Your task to perform on an android device: Clear the shopping cart on amazon.com. Search for "razer blackwidow" on amazon.com, select the first entry, and add it to the cart. Image 0: 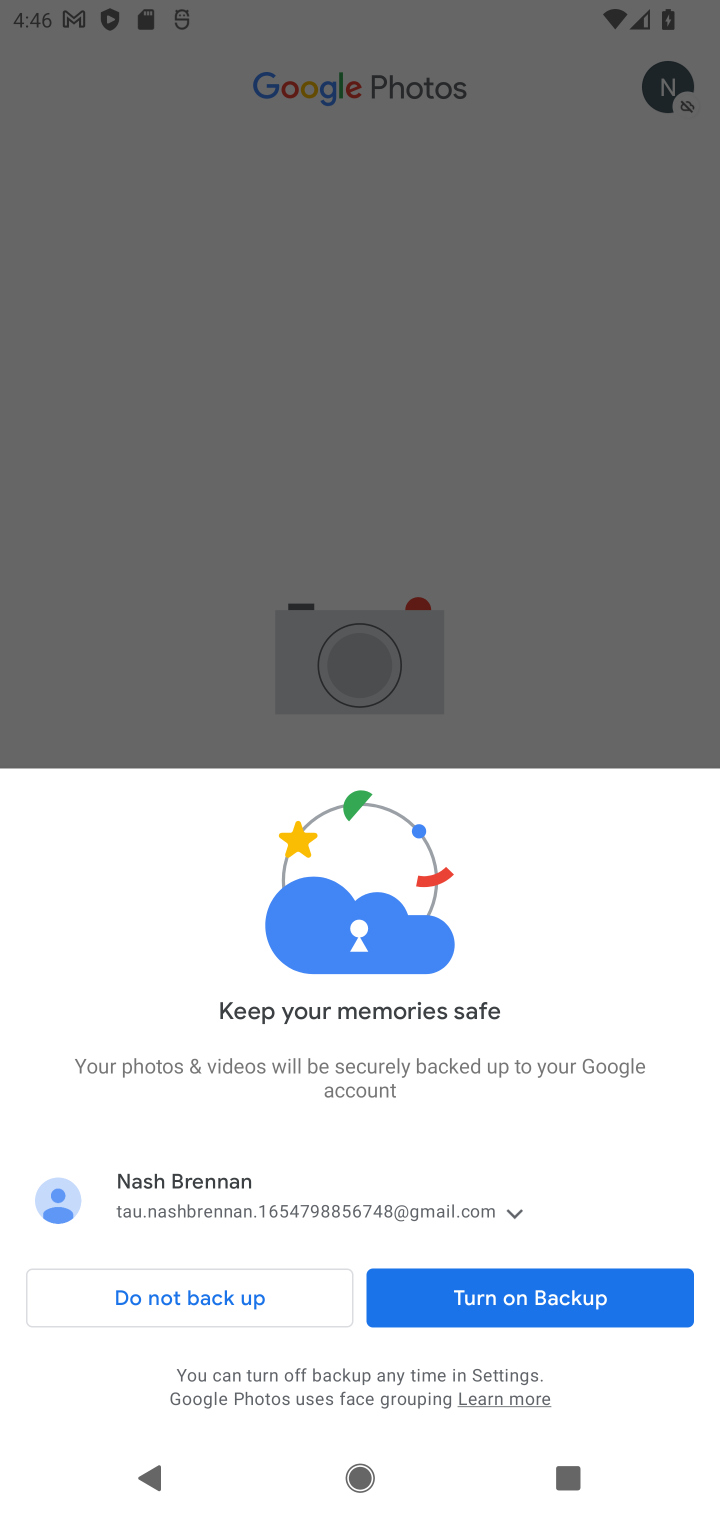
Step 0: press home button
Your task to perform on an android device: Clear the shopping cart on amazon.com. Search for "razer blackwidow" on amazon.com, select the first entry, and add it to the cart. Image 1: 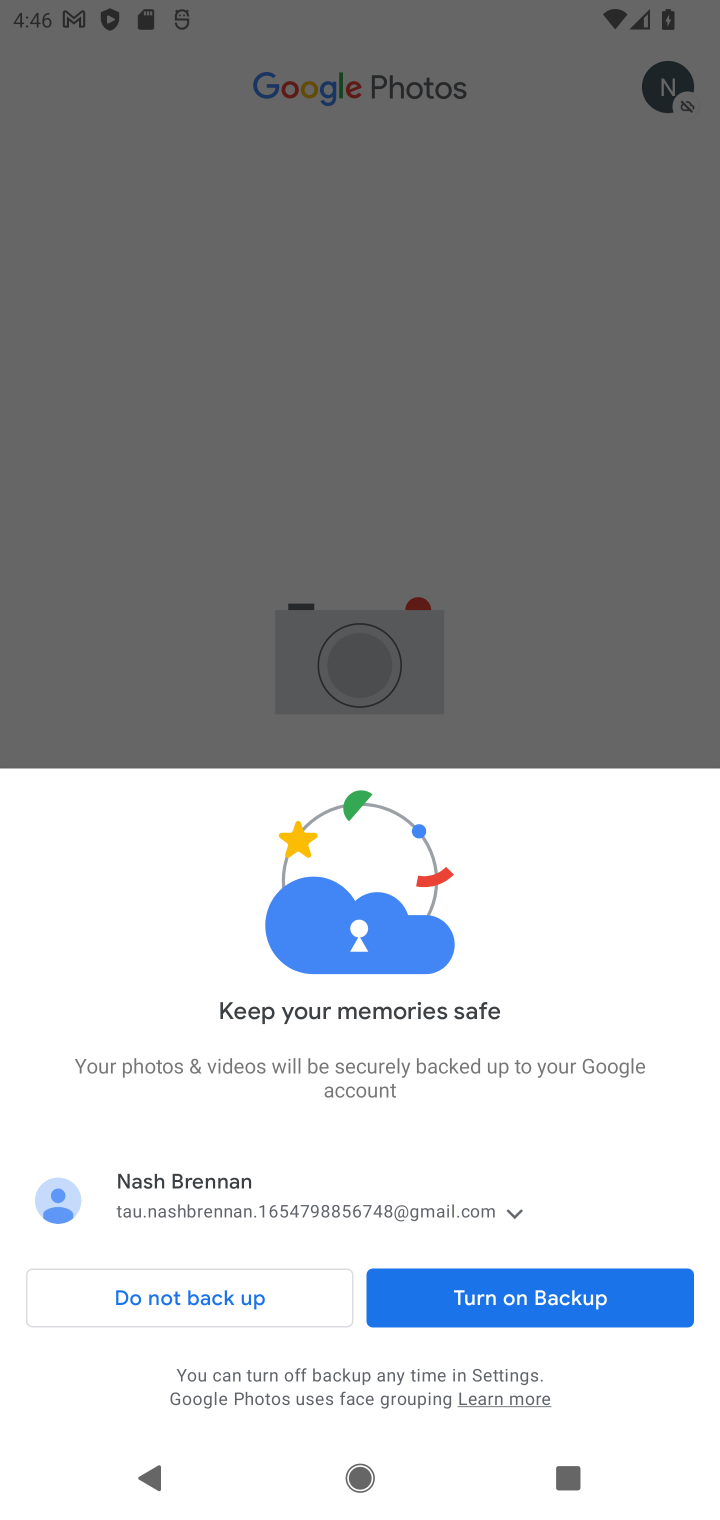
Step 1: press home button
Your task to perform on an android device: Clear the shopping cart on amazon.com. Search for "razer blackwidow" on amazon.com, select the first entry, and add it to the cart. Image 2: 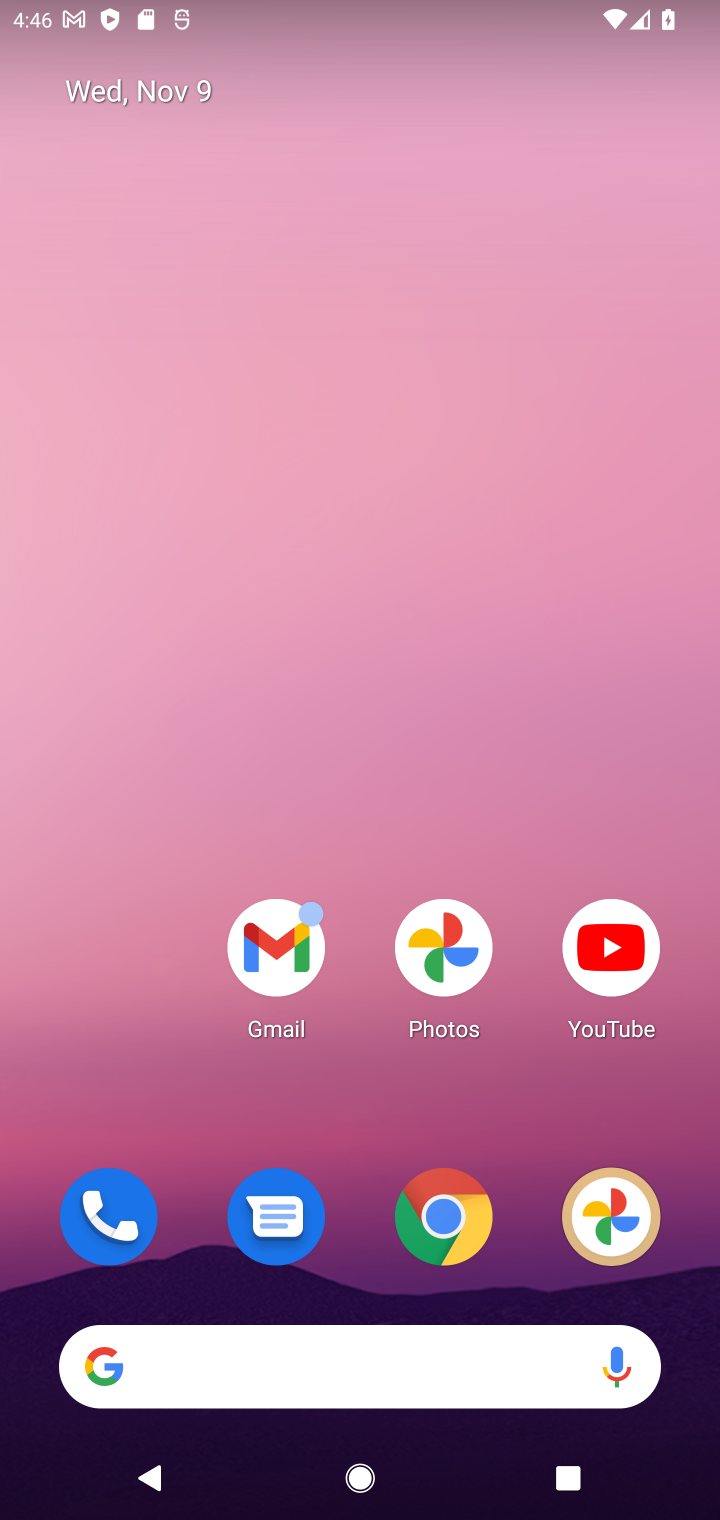
Step 2: drag from (333, 1170) to (529, 226)
Your task to perform on an android device: Clear the shopping cart on amazon.com. Search for "razer blackwidow" on amazon.com, select the first entry, and add it to the cart. Image 3: 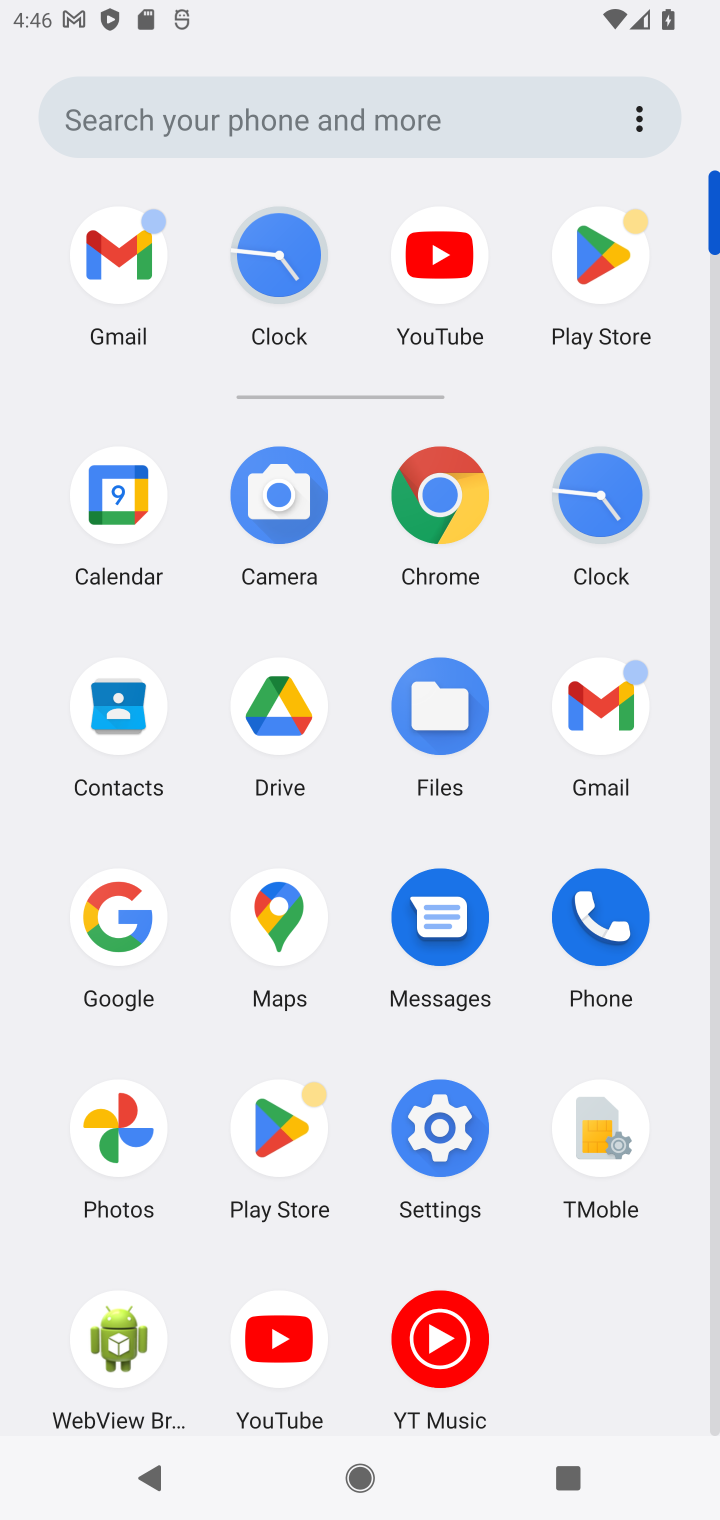
Step 3: click (429, 501)
Your task to perform on an android device: Clear the shopping cart on amazon.com. Search for "razer blackwidow" on amazon.com, select the first entry, and add it to the cart. Image 4: 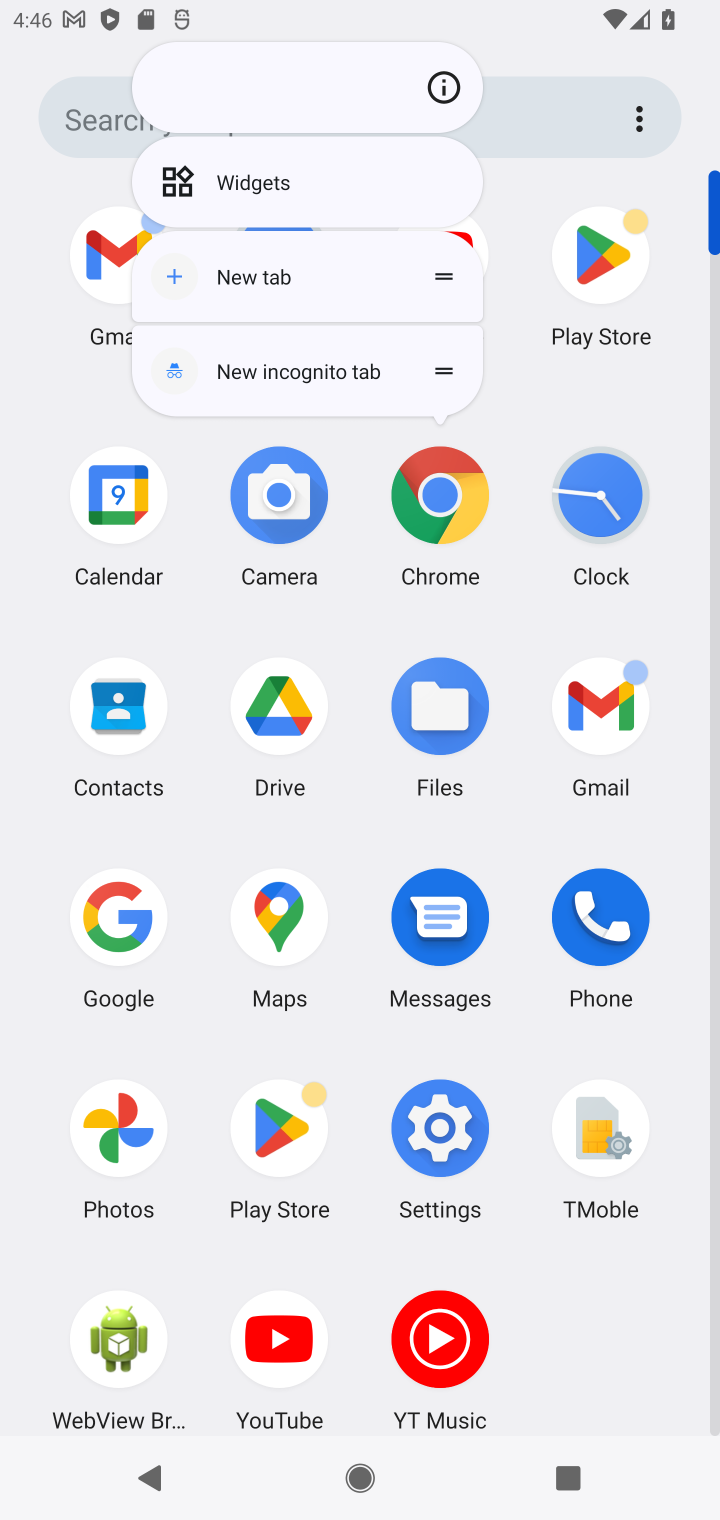
Step 4: click (458, 489)
Your task to perform on an android device: Clear the shopping cart on amazon.com. Search for "razer blackwidow" on amazon.com, select the first entry, and add it to the cart. Image 5: 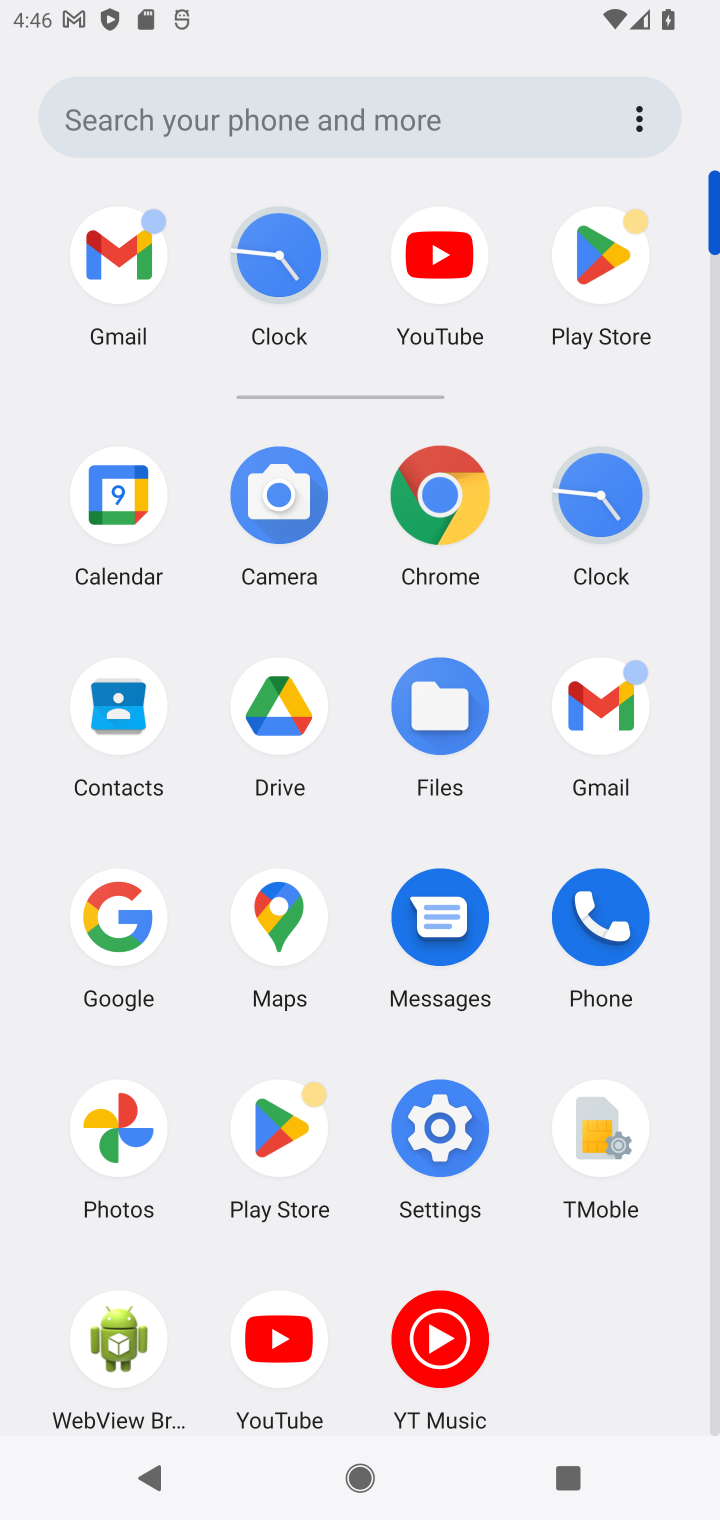
Step 5: click (442, 493)
Your task to perform on an android device: Clear the shopping cart on amazon.com. Search for "razer blackwidow" on amazon.com, select the first entry, and add it to the cart. Image 6: 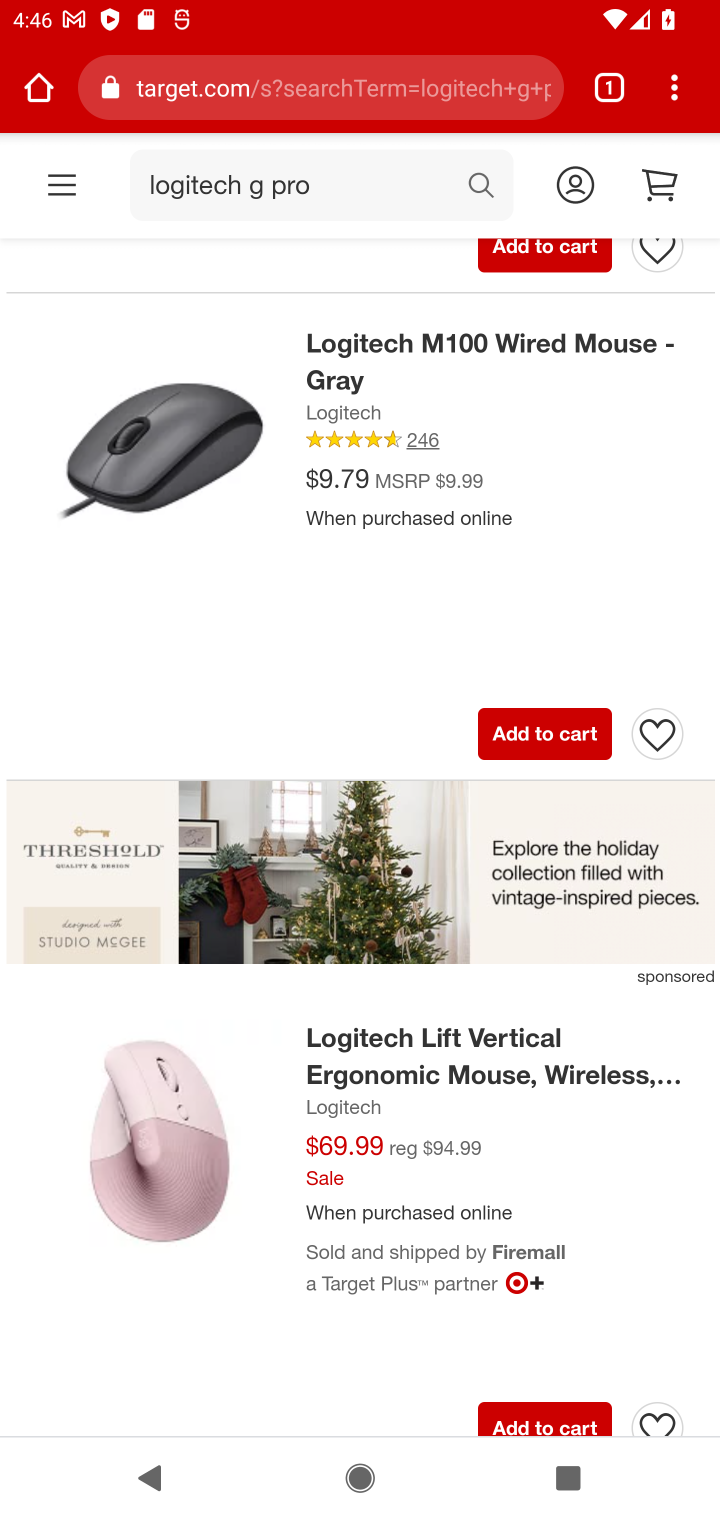
Step 6: click (371, 95)
Your task to perform on an android device: Clear the shopping cart on amazon.com. Search for "razer blackwidow" on amazon.com, select the first entry, and add it to the cart. Image 7: 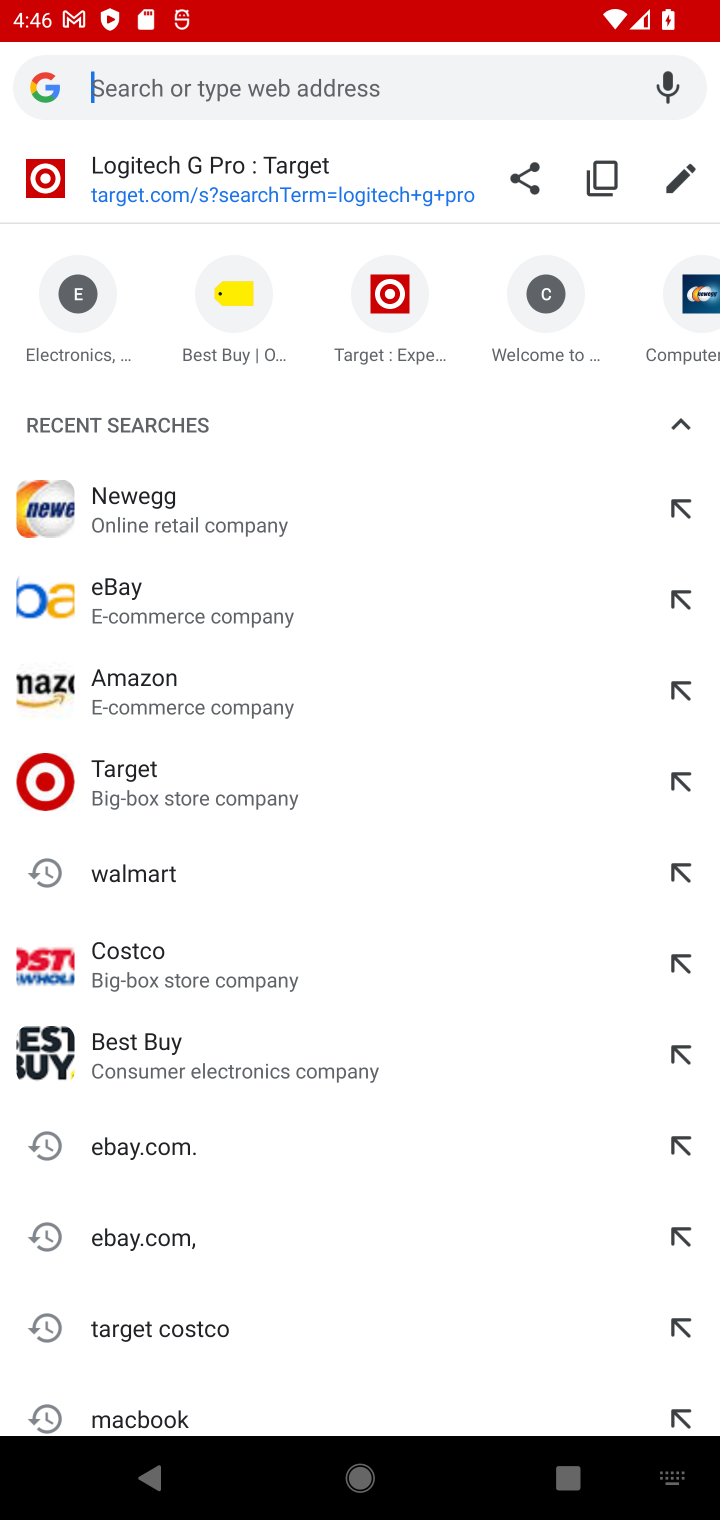
Step 7: type "amazon.com"
Your task to perform on an android device: Clear the shopping cart on amazon.com. Search for "razer blackwidow" on amazon.com, select the first entry, and add it to the cart. Image 8: 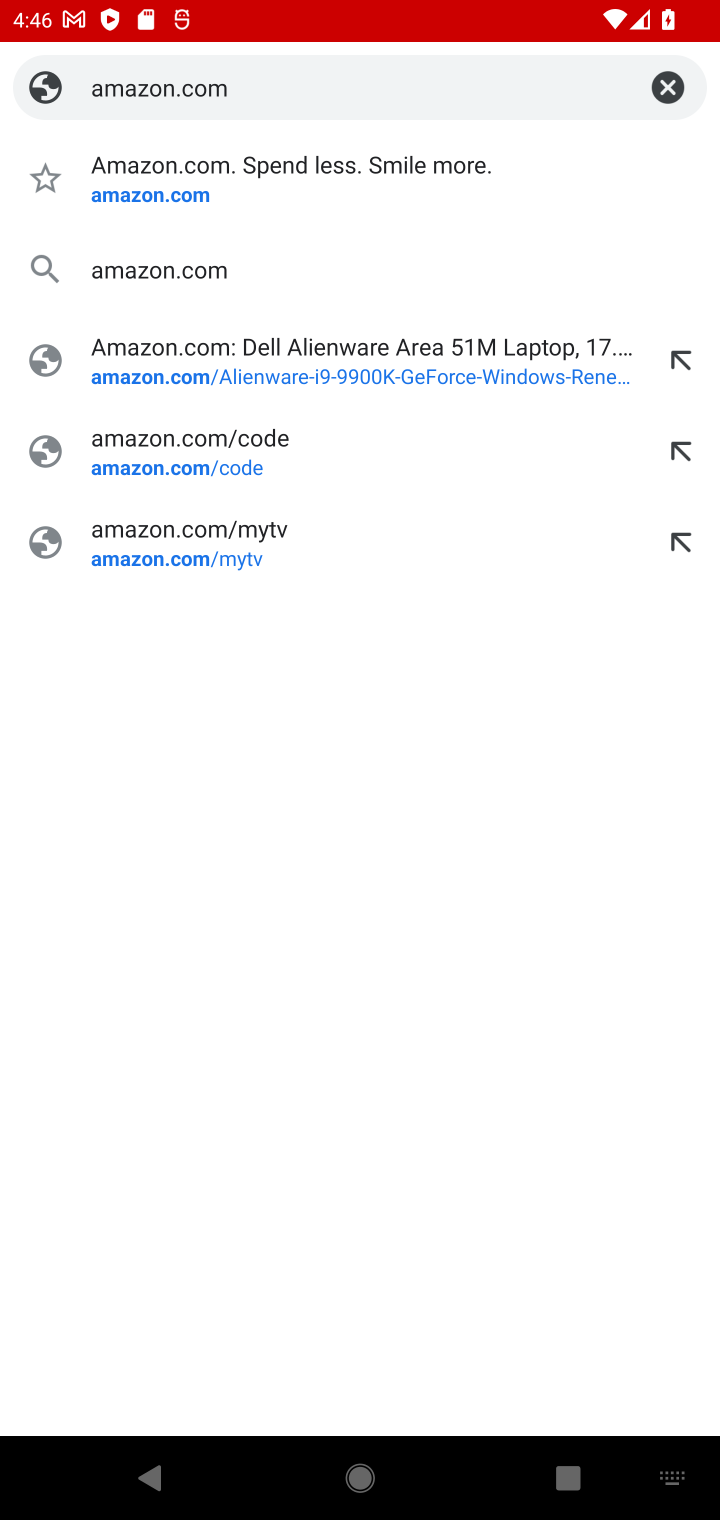
Step 8: press enter
Your task to perform on an android device: Clear the shopping cart on amazon.com. Search for "razer blackwidow" on amazon.com, select the first entry, and add it to the cart. Image 9: 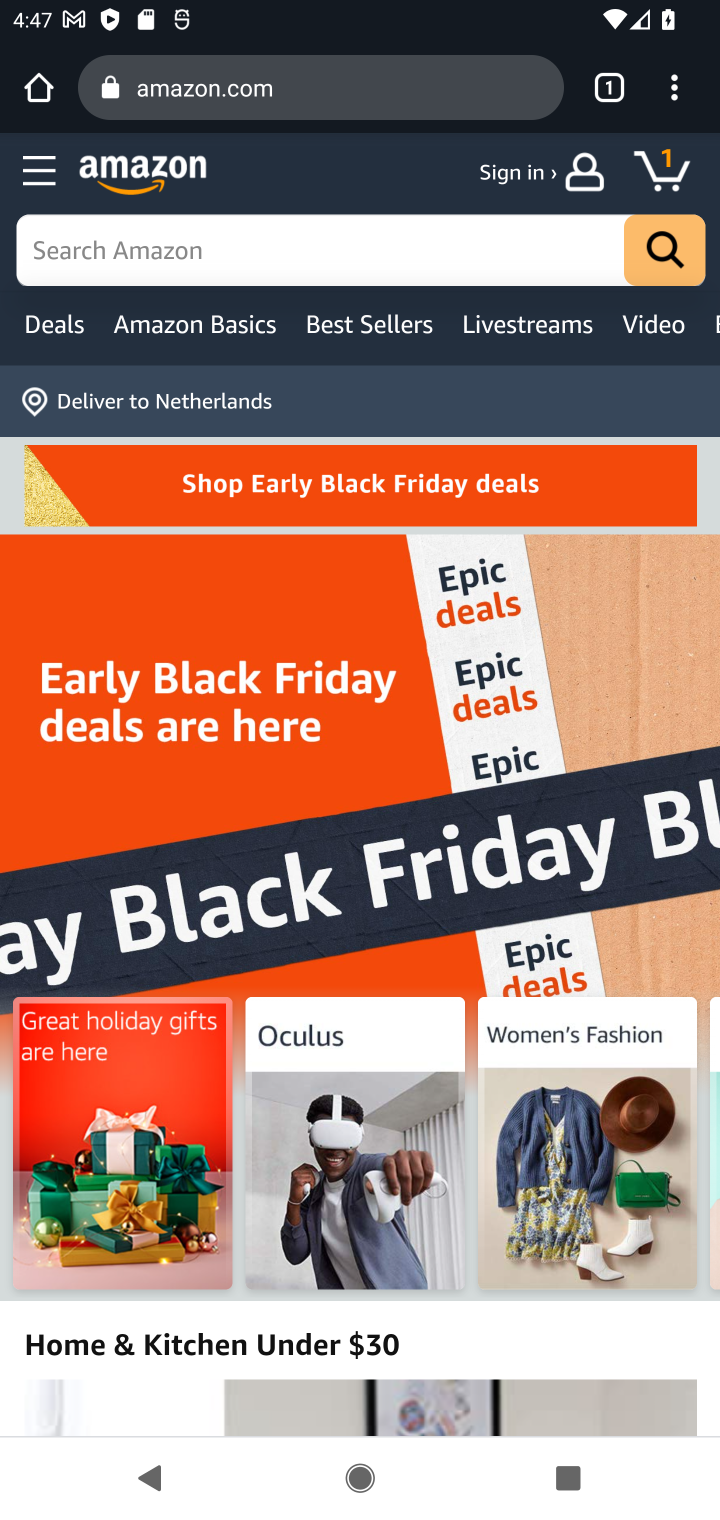
Step 9: click (672, 165)
Your task to perform on an android device: Clear the shopping cart on amazon.com. Search for "razer blackwidow" on amazon.com, select the first entry, and add it to the cart. Image 10: 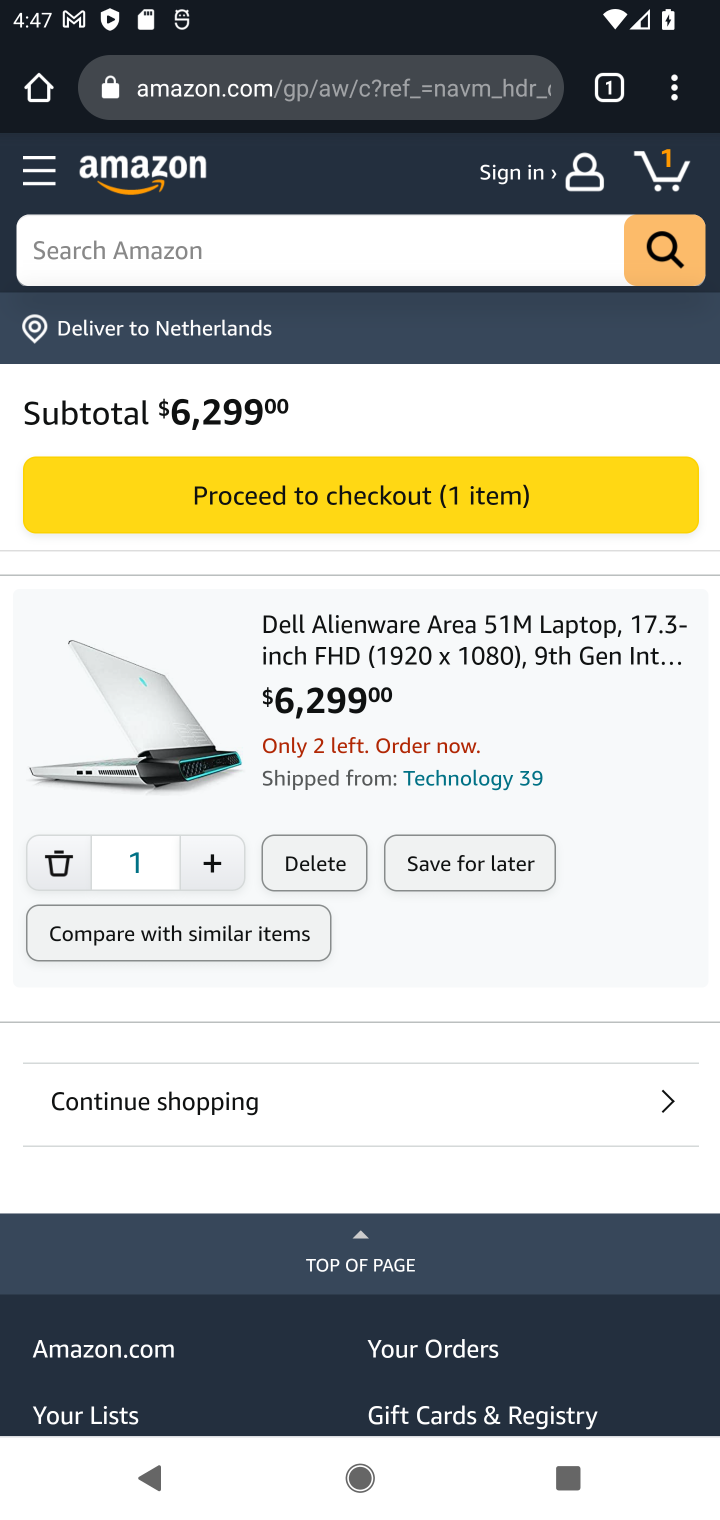
Step 10: click (65, 853)
Your task to perform on an android device: Clear the shopping cart on amazon.com. Search for "razer blackwidow" on amazon.com, select the first entry, and add it to the cart. Image 11: 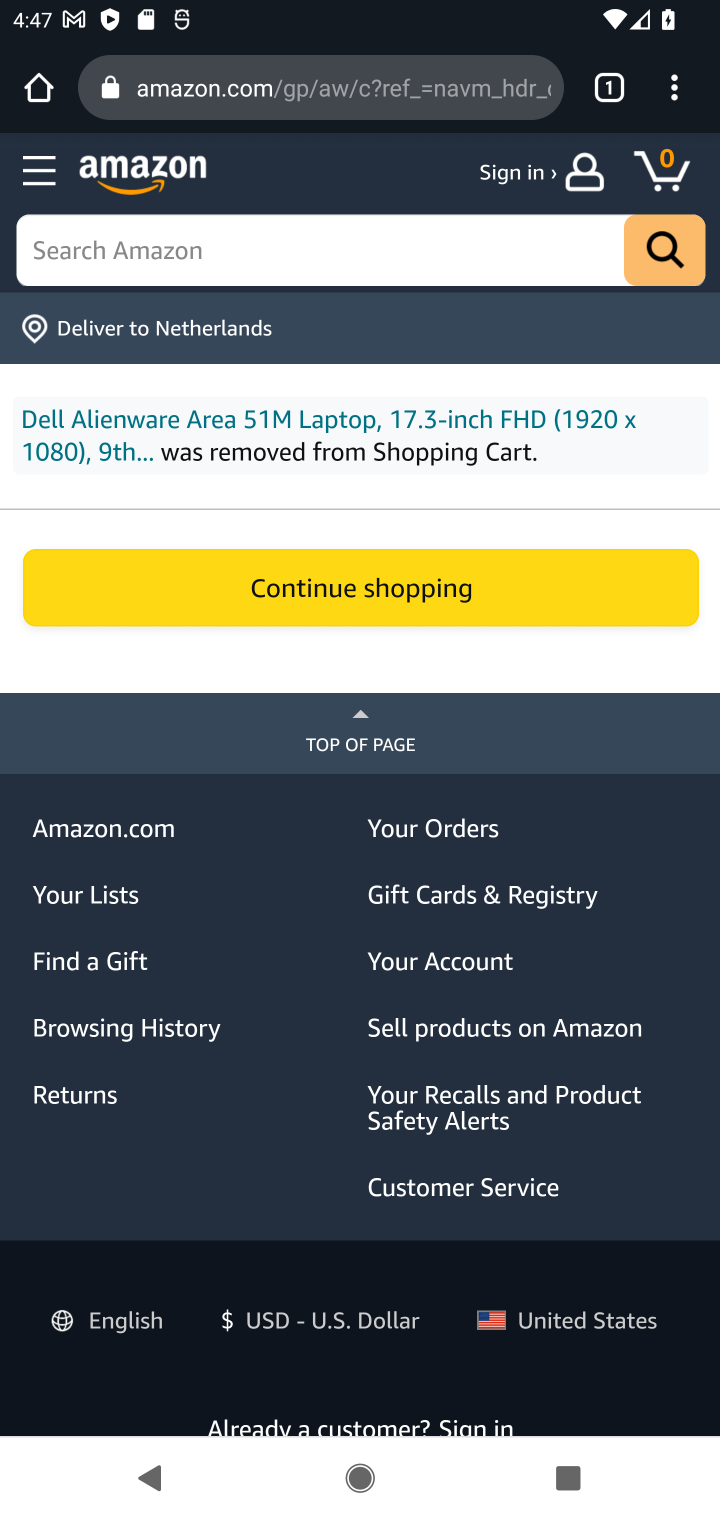
Step 11: click (467, 240)
Your task to perform on an android device: Clear the shopping cart on amazon.com. Search for "razer blackwidow" on amazon.com, select the first entry, and add it to the cart. Image 12: 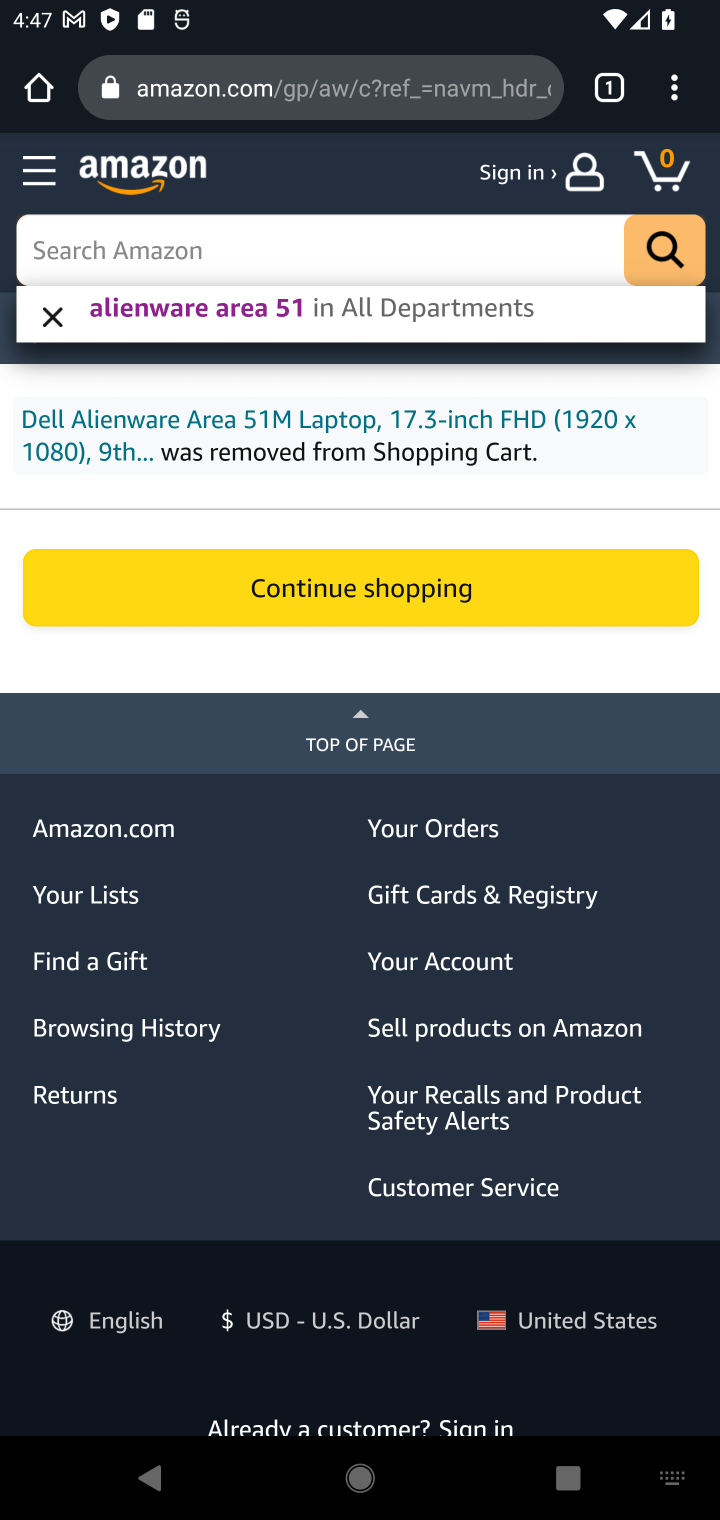
Step 12: type "razer blackwidow"
Your task to perform on an android device: Clear the shopping cart on amazon.com. Search for "razer blackwidow" on amazon.com, select the first entry, and add it to the cart. Image 13: 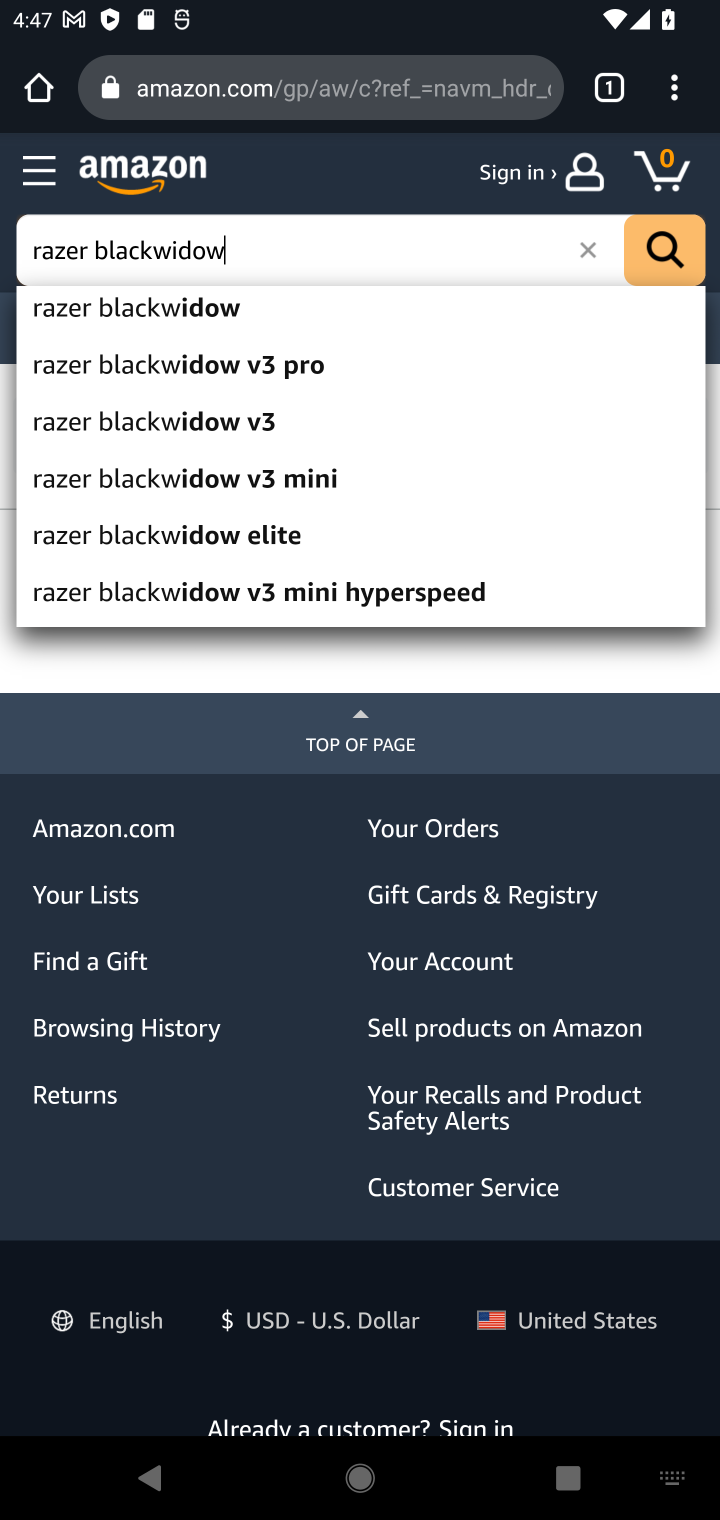
Step 13: press enter
Your task to perform on an android device: Clear the shopping cart on amazon.com. Search for "razer blackwidow" on amazon.com, select the first entry, and add it to the cart. Image 14: 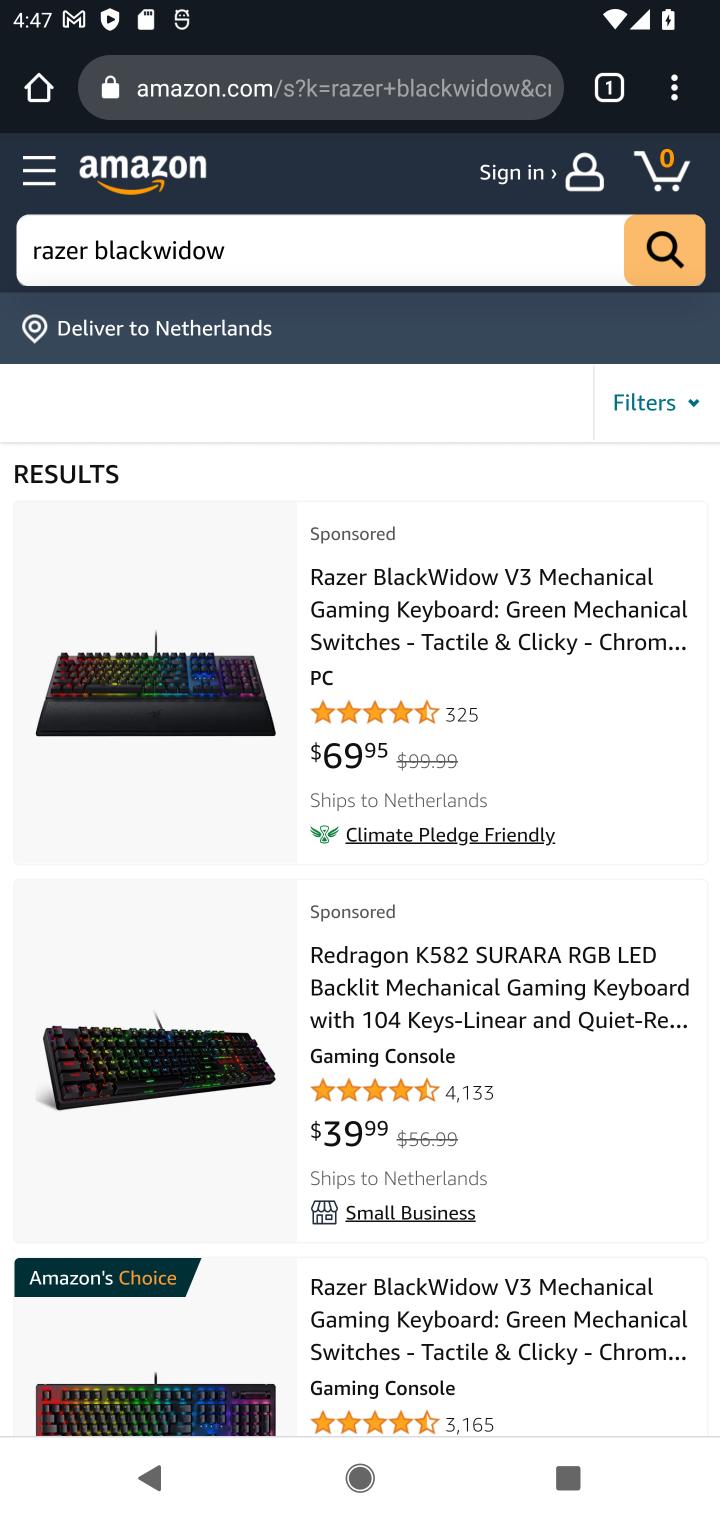
Step 14: click (515, 1313)
Your task to perform on an android device: Clear the shopping cart on amazon.com. Search for "razer blackwidow" on amazon.com, select the first entry, and add it to the cart. Image 15: 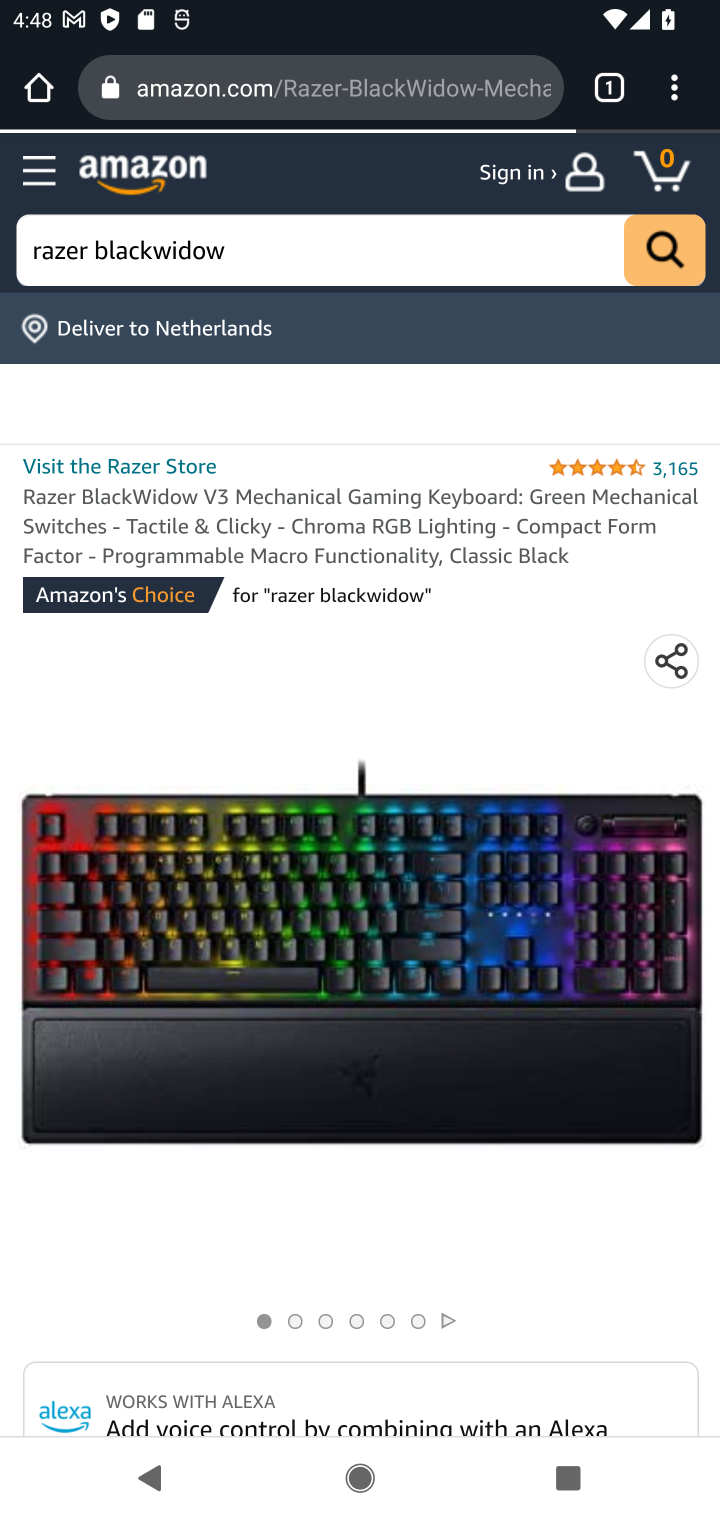
Step 15: drag from (354, 1224) to (424, 255)
Your task to perform on an android device: Clear the shopping cart on amazon.com. Search for "razer blackwidow" on amazon.com, select the first entry, and add it to the cart. Image 16: 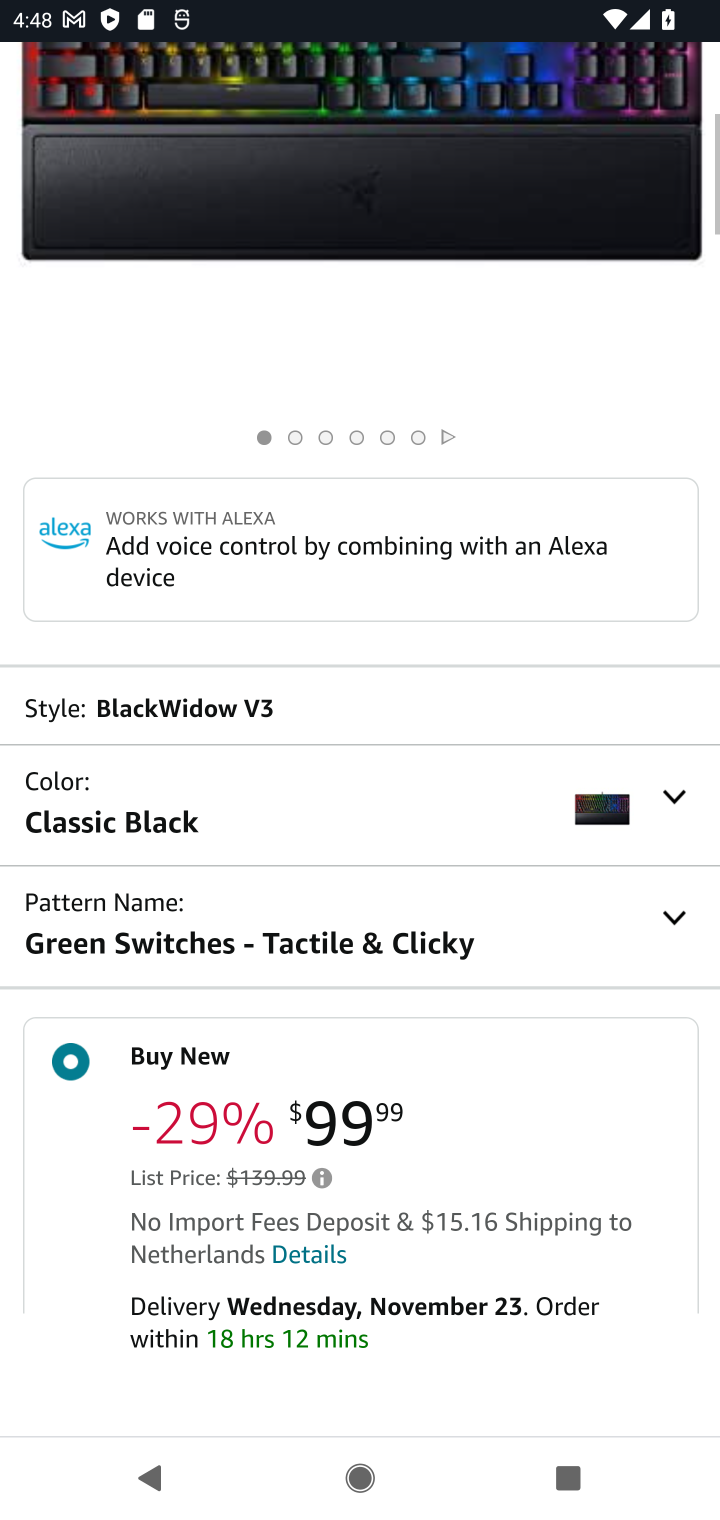
Step 16: drag from (448, 1173) to (510, 387)
Your task to perform on an android device: Clear the shopping cart on amazon.com. Search for "razer blackwidow" on amazon.com, select the first entry, and add it to the cart. Image 17: 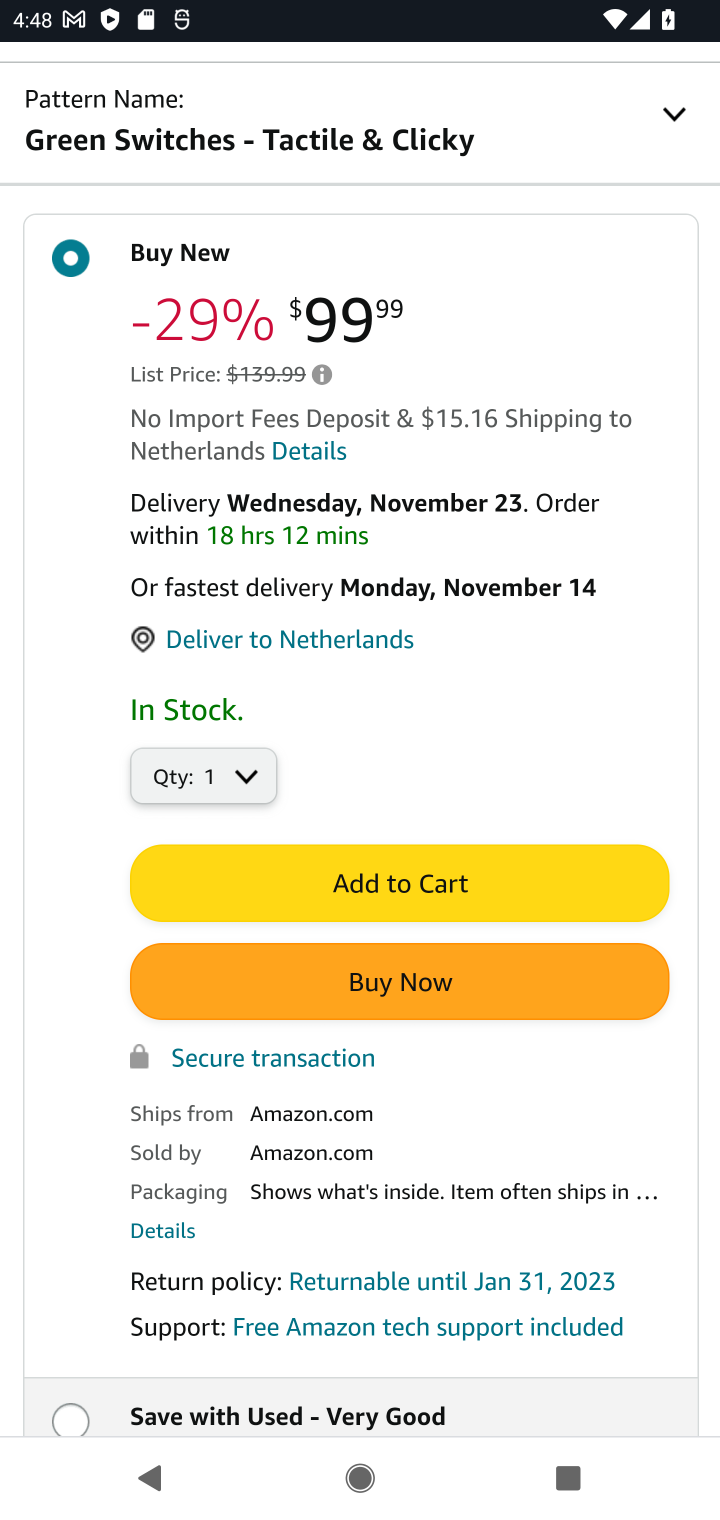
Step 17: click (469, 889)
Your task to perform on an android device: Clear the shopping cart on amazon.com. Search for "razer blackwidow" on amazon.com, select the first entry, and add it to the cart. Image 18: 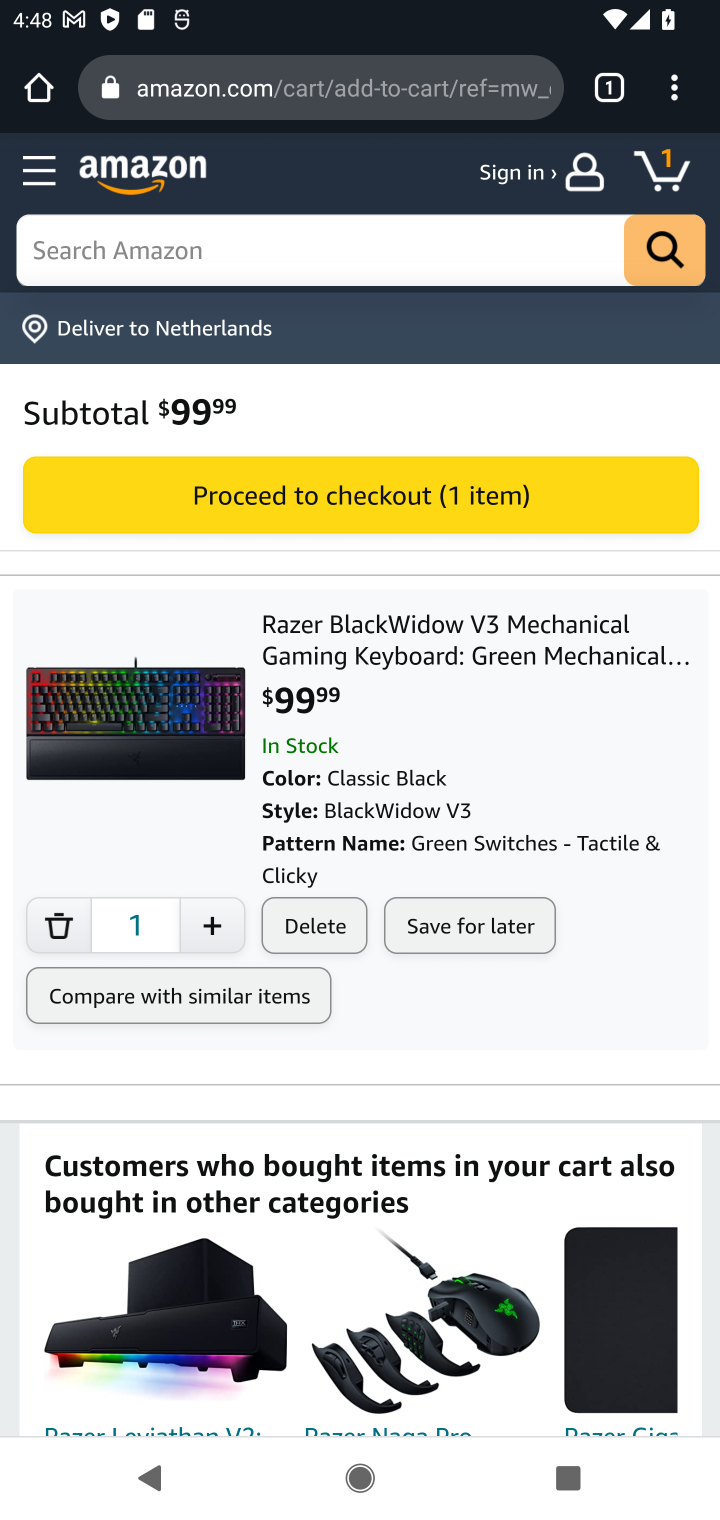
Step 18: task complete